Your task to perform on an android device: turn on translation in the chrome app Image 0: 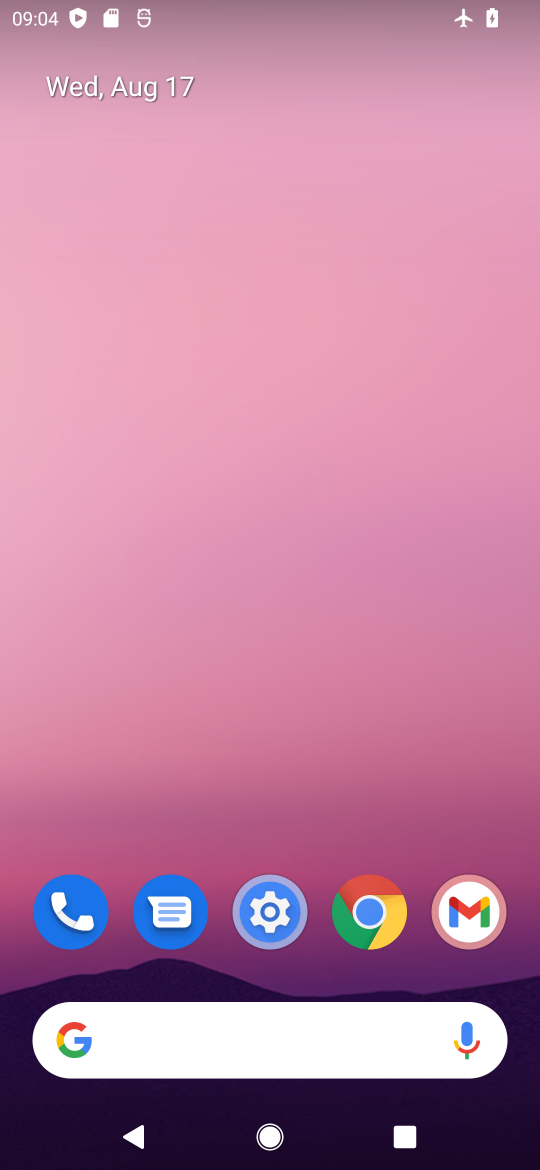
Step 0: click (370, 931)
Your task to perform on an android device: turn on translation in the chrome app Image 1: 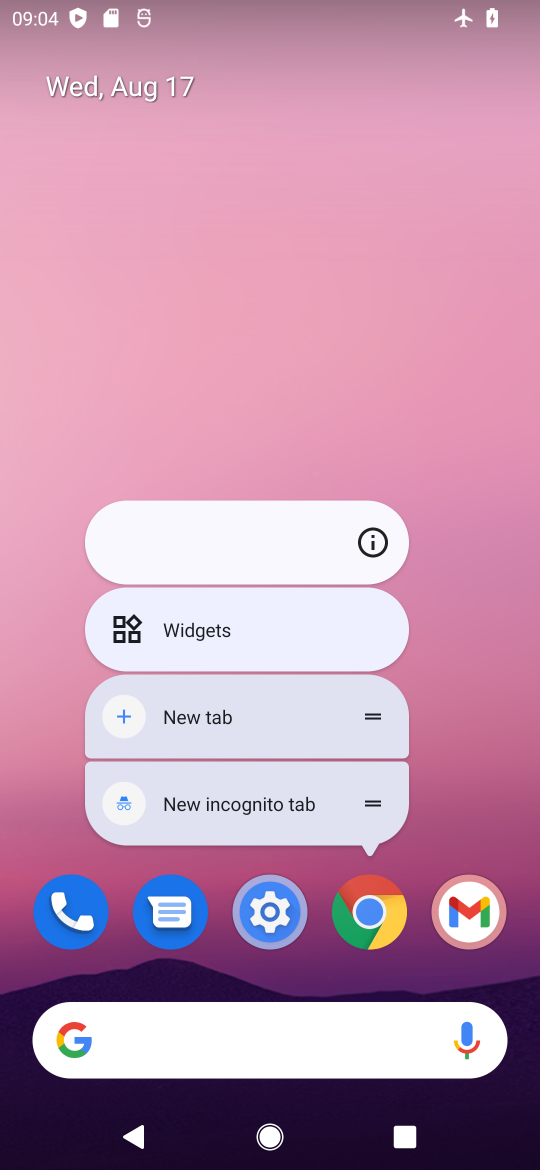
Step 1: click (375, 929)
Your task to perform on an android device: turn on translation in the chrome app Image 2: 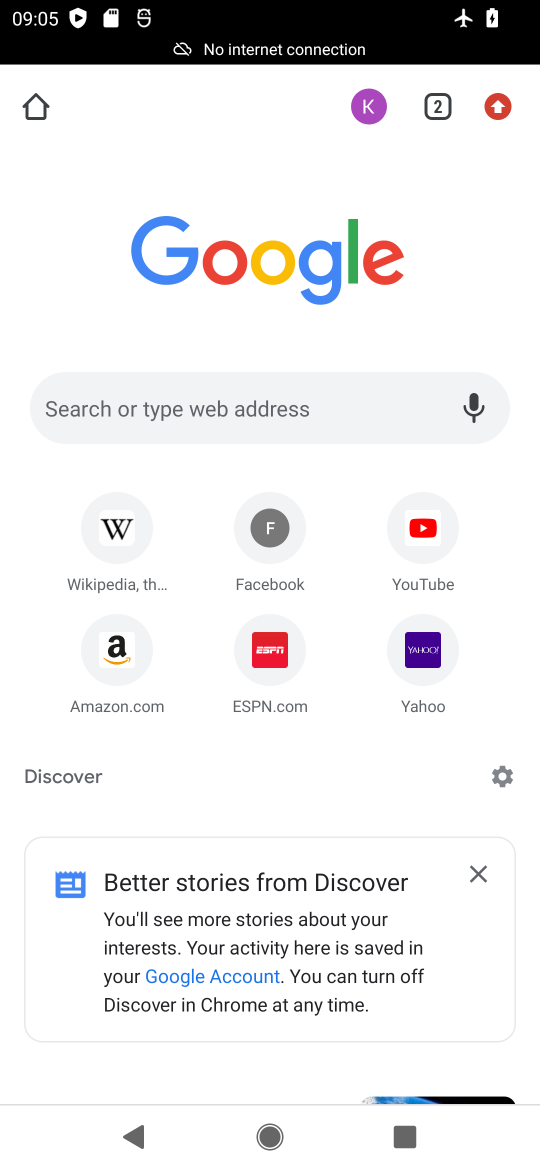
Step 2: click (490, 80)
Your task to perform on an android device: turn on translation in the chrome app Image 3: 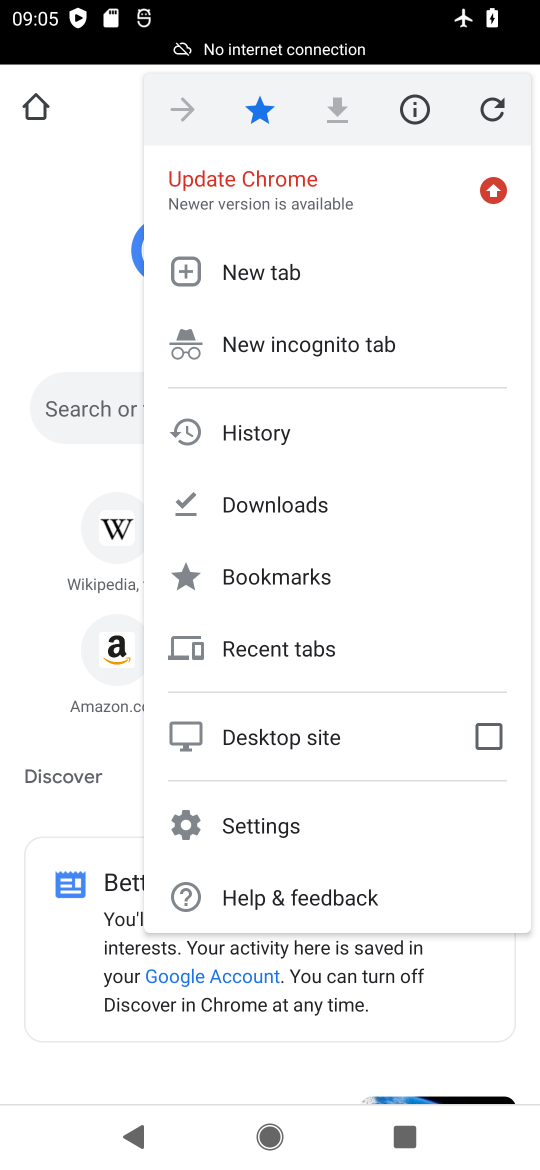
Step 3: click (238, 809)
Your task to perform on an android device: turn on translation in the chrome app Image 4: 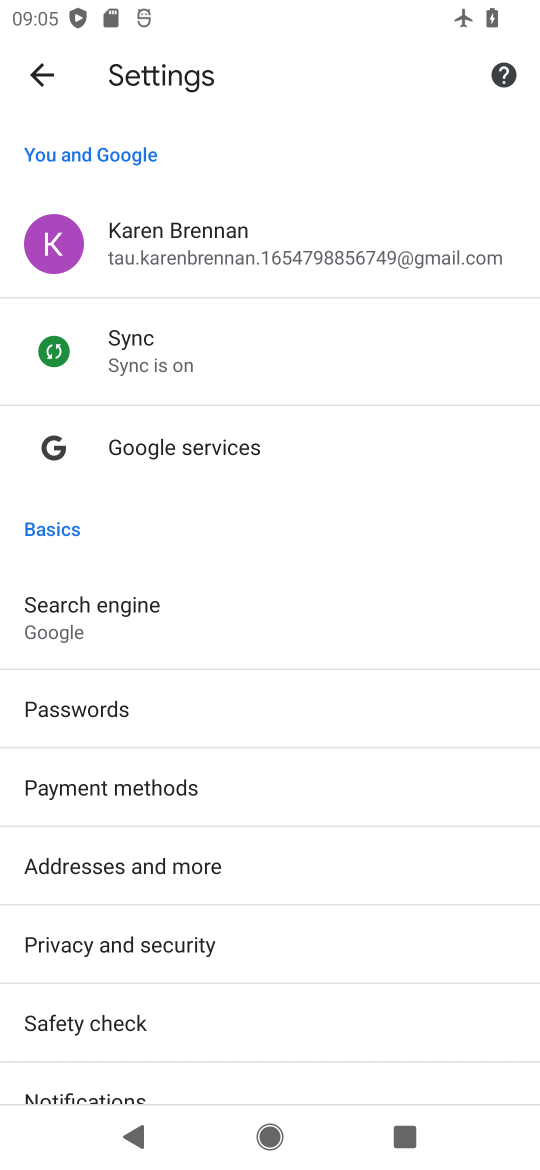
Step 4: drag from (146, 1049) to (149, 412)
Your task to perform on an android device: turn on translation in the chrome app Image 5: 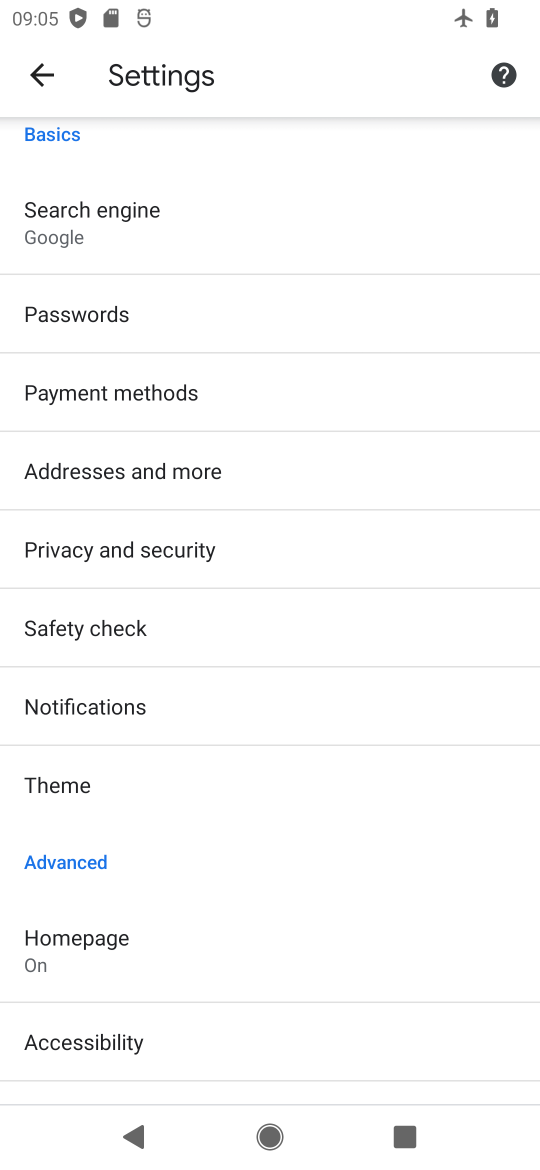
Step 5: drag from (97, 1032) to (147, 386)
Your task to perform on an android device: turn on translation in the chrome app Image 6: 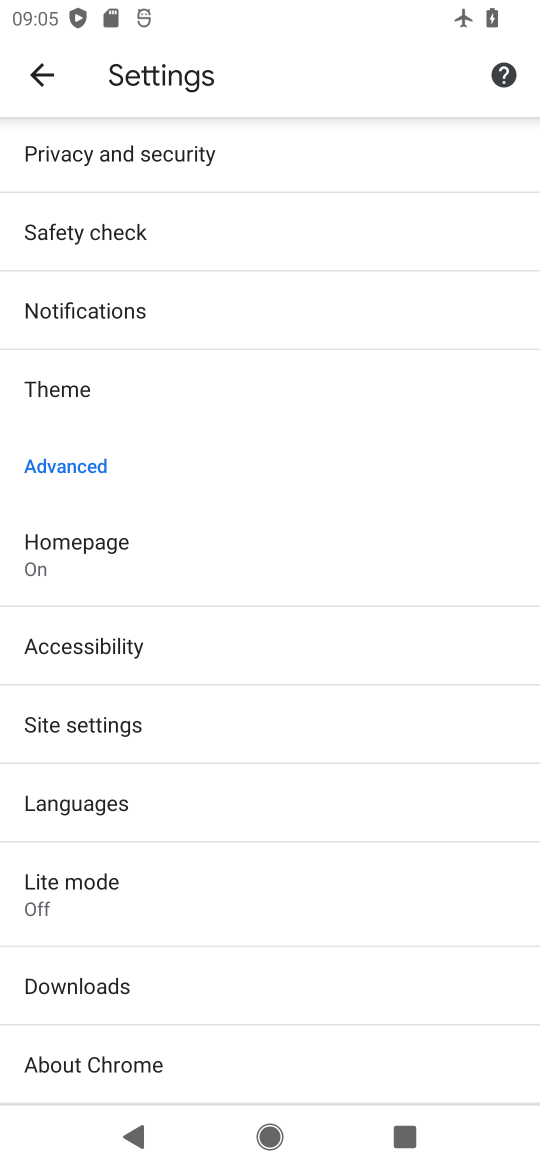
Step 6: click (55, 803)
Your task to perform on an android device: turn on translation in the chrome app Image 7: 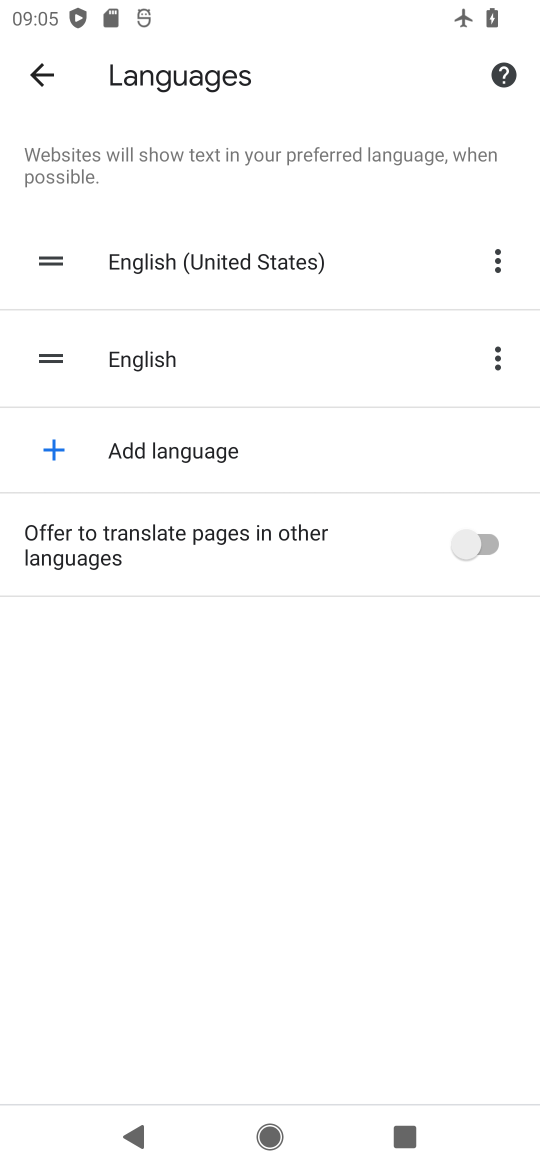
Step 7: click (482, 544)
Your task to perform on an android device: turn on translation in the chrome app Image 8: 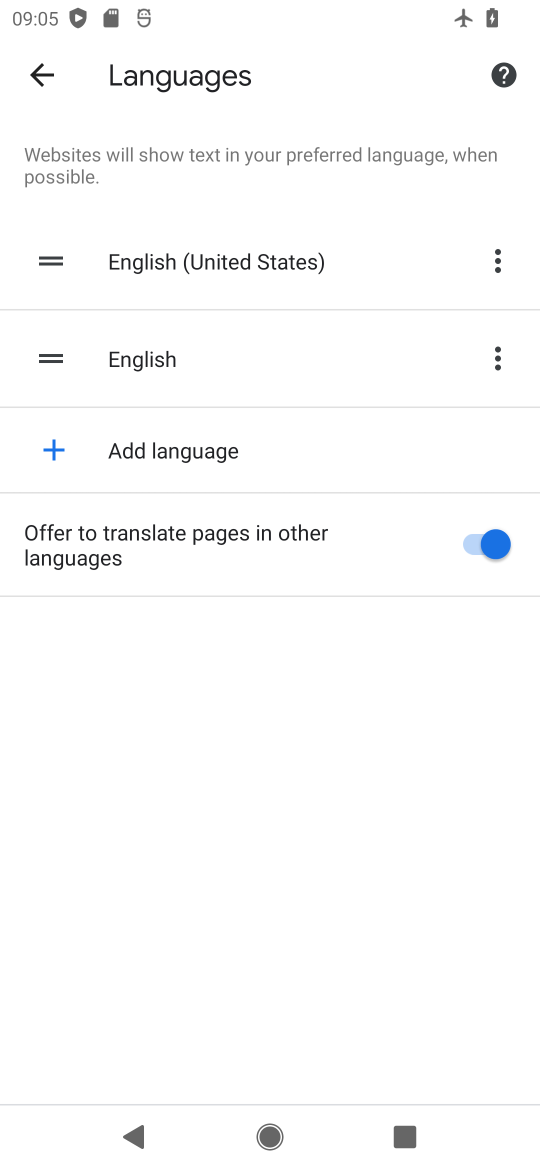
Step 8: task complete